Your task to perform on an android device: Open network settings Image 0: 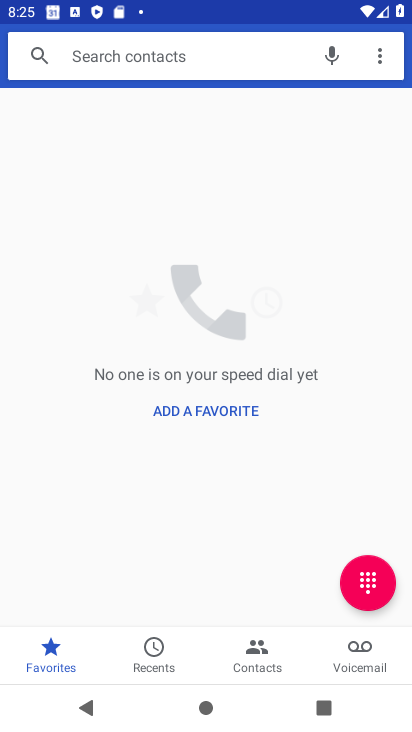
Step 0: press home button
Your task to perform on an android device: Open network settings Image 1: 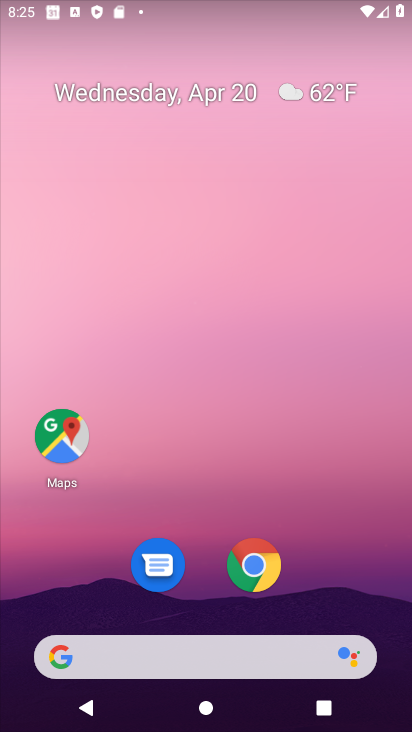
Step 1: drag from (358, 497) to (299, 87)
Your task to perform on an android device: Open network settings Image 2: 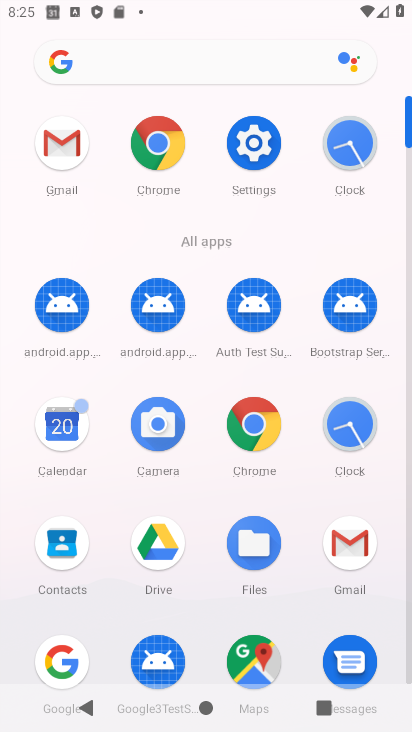
Step 2: click (248, 145)
Your task to perform on an android device: Open network settings Image 3: 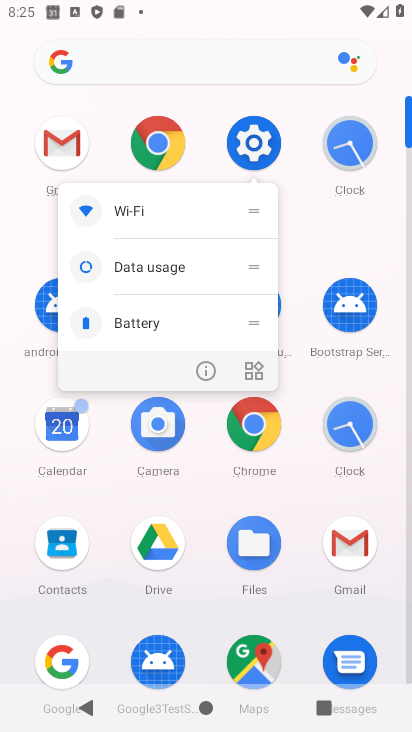
Step 3: click (246, 145)
Your task to perform on an android device: Open network settings Image 4: 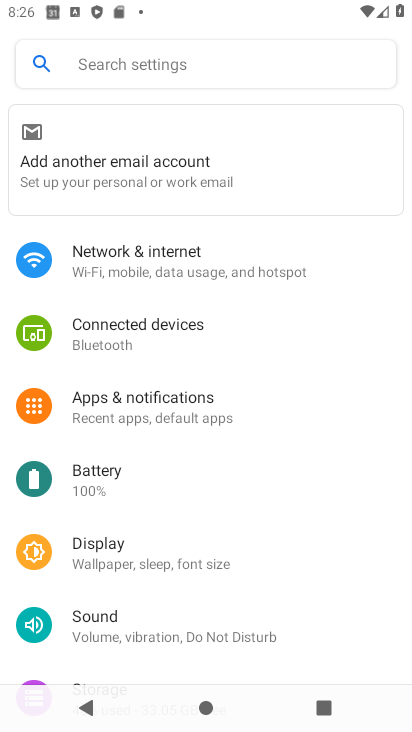
Step 4: click (134, 258)
Your task to perform on an android device: Open network settings Image 5: 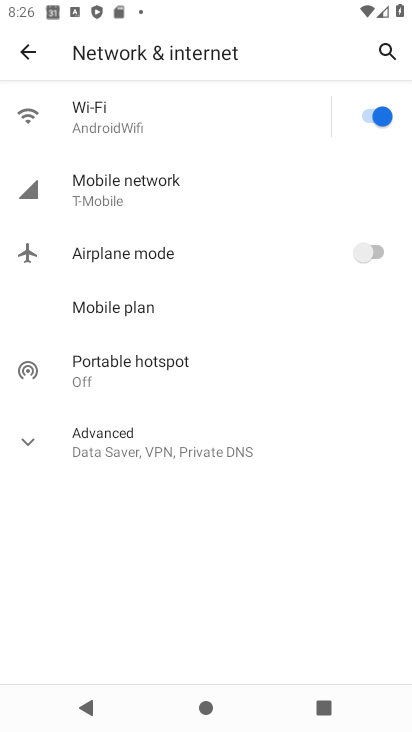
Step 5: click (168, 178)
Your task to perform on an android device: Open network settings Image 6: 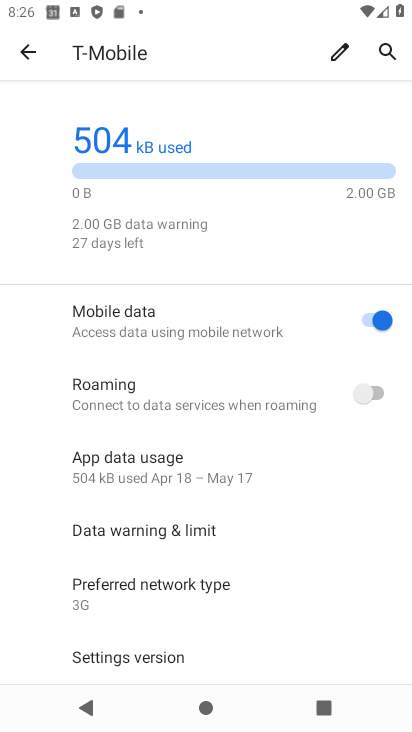
Step 6: task complete